Your task to perform on an android device: Go to wifi settings Image 0: 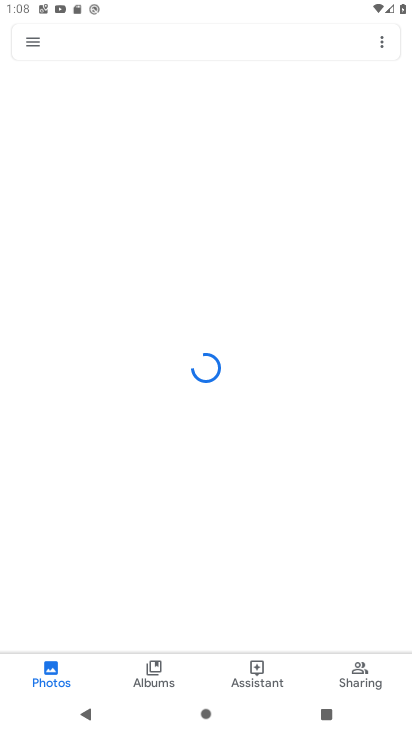
Step 0: press home button
Your task to perform on an android device: Go to wifi settings Image 1: 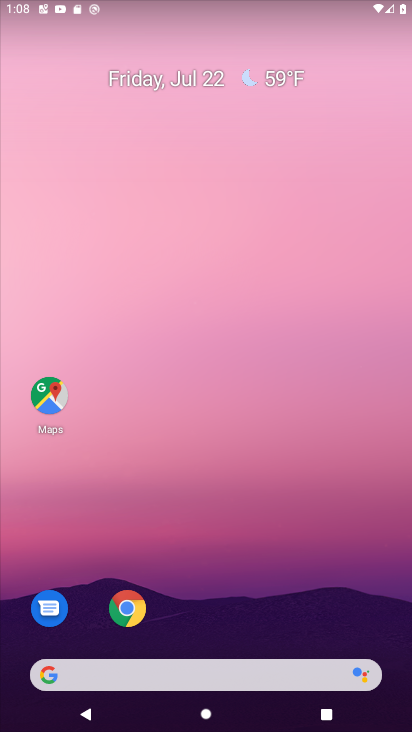
Step 1: drag from (187, 644) to (201, 0)
Your task to perform on an android device: Go to wifi settings Image 2: 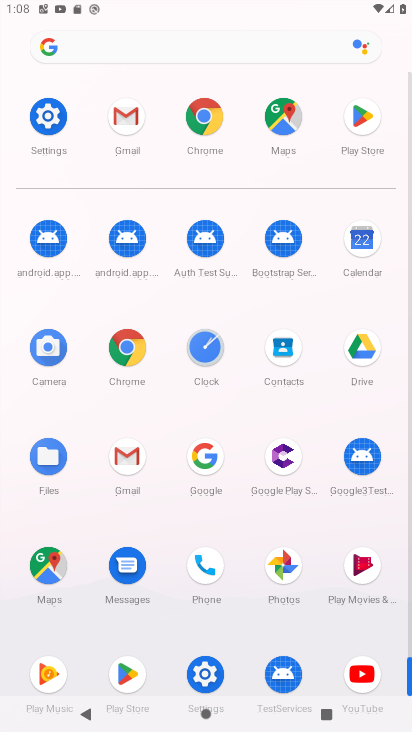
Step 2: click (208, 677)
Your task to perform on an android device: Go to wifi settings Image 3: 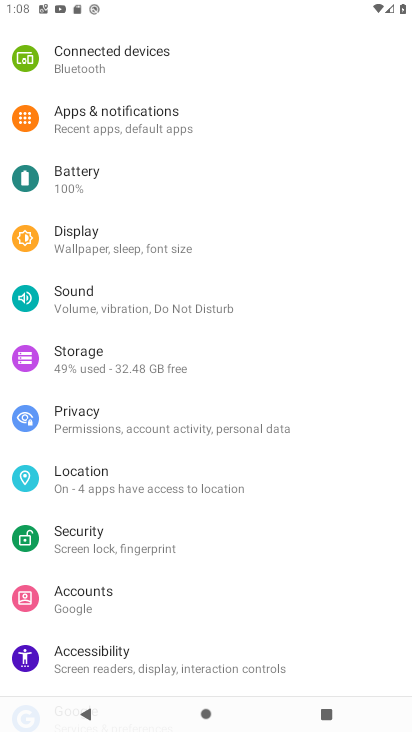
Step 3: drag from (155, 82) to (175, 499)
Your task to perform on an android device: Go to wifi settings Image 4: 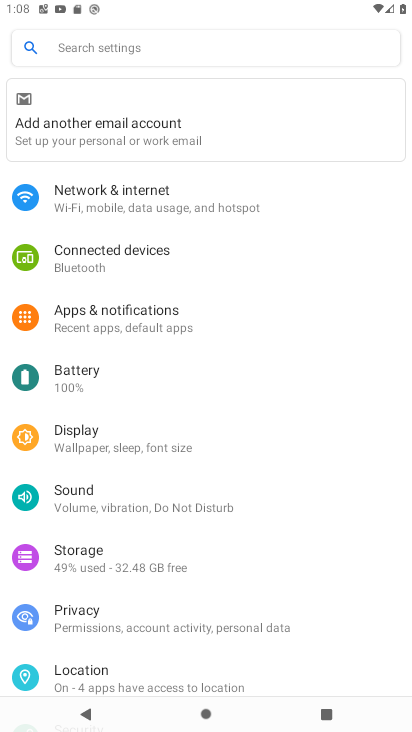
Step 4: click (156, 204)
Your task to perform on an android device: Go to wifi settings Image 5: 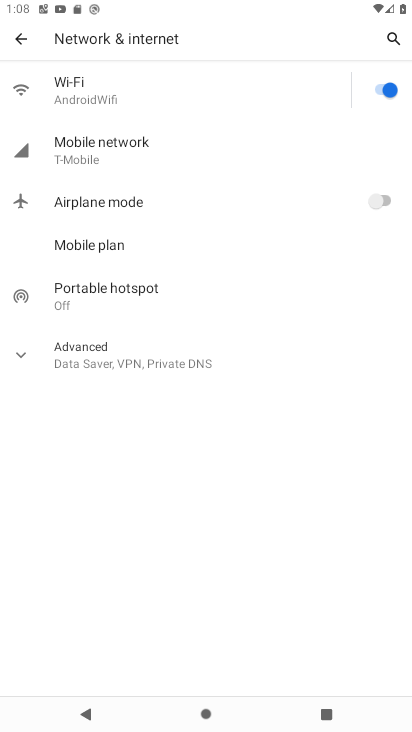
Step 5: click (95, 98)
Your task to perform on an android device: Go to wifi settings Image 6: 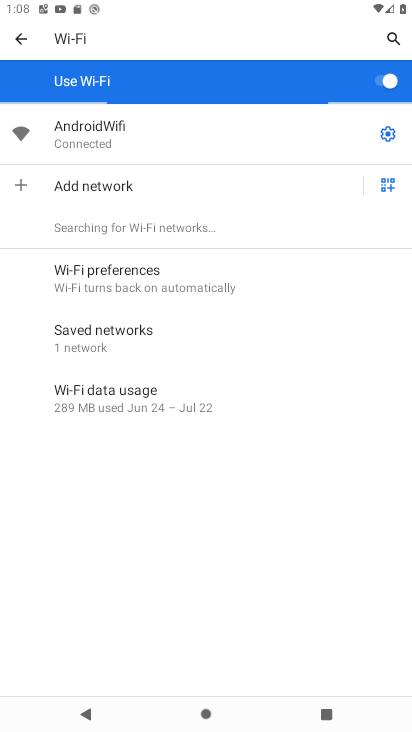
Step 6: task complete